Your task to perform on an android device: delete browsing data in the chrome app Image 0: 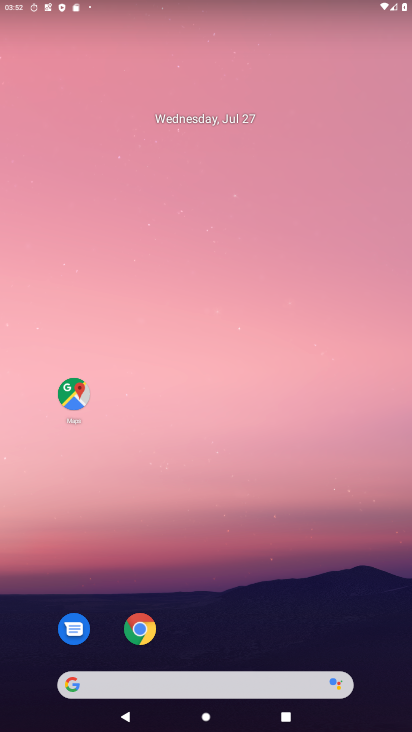
Step 0: drag from (294, 584) to (307, 111)
Your task to perform on an android device: delete browsing data in the chrome app Image 1: 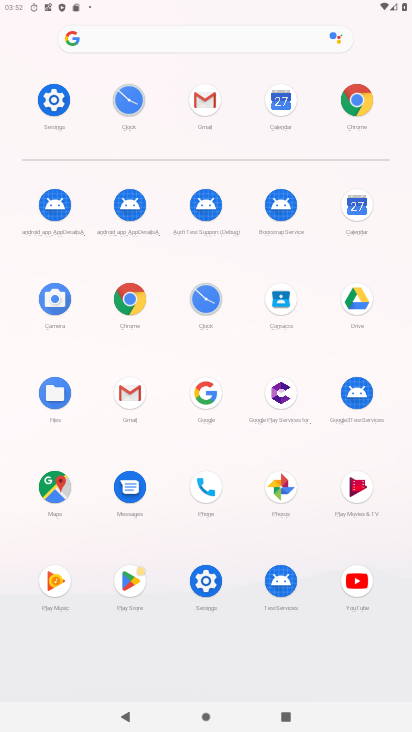
Step 1: click (128, 296)
Your task to perform on an android device: delete browsing data in the chrome app Image 2: 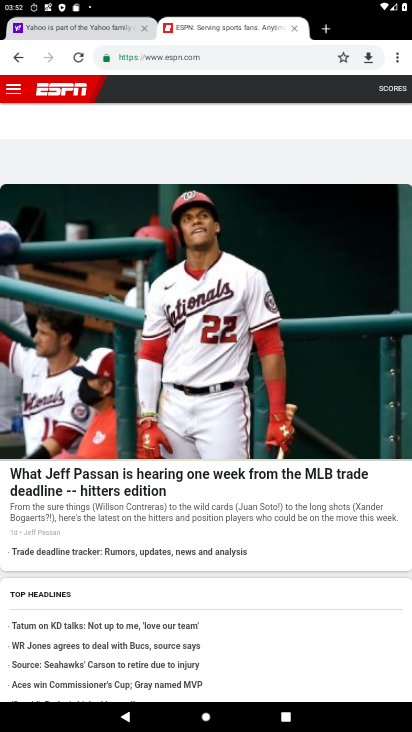
Step 2: drag from (401, 58) to (288, 179)
Your task to perform on an android device: delete browsing data in the chrome app Image 3: 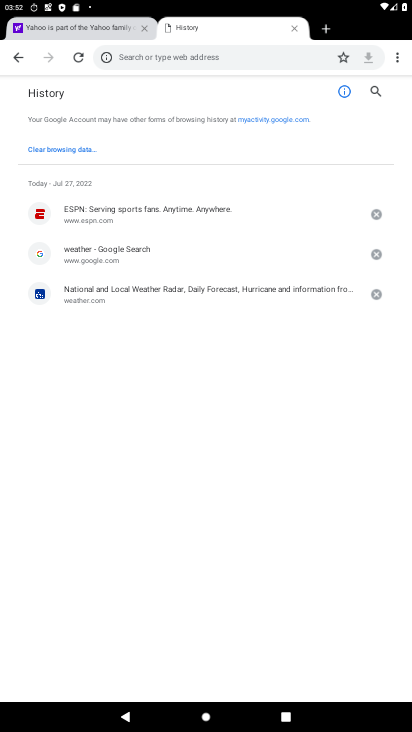
Step 3: click (55, 143)
Your task to perform on an android device: delete browsing data in the chrome app Image 4: 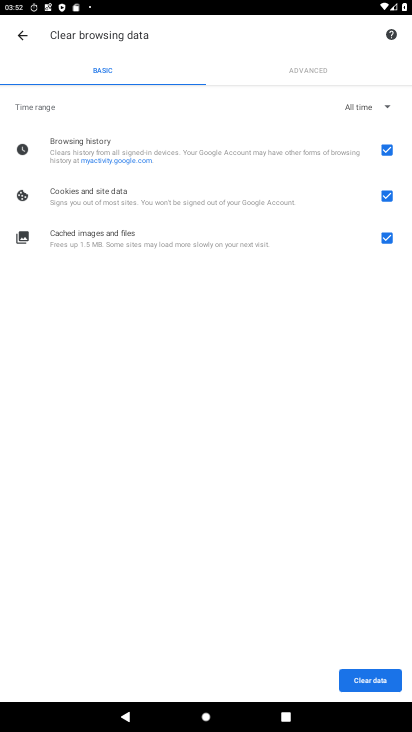
Step 4: click (389, 677)
Your task to perform on an android device: delete browsing data in the chrome app Image 5: 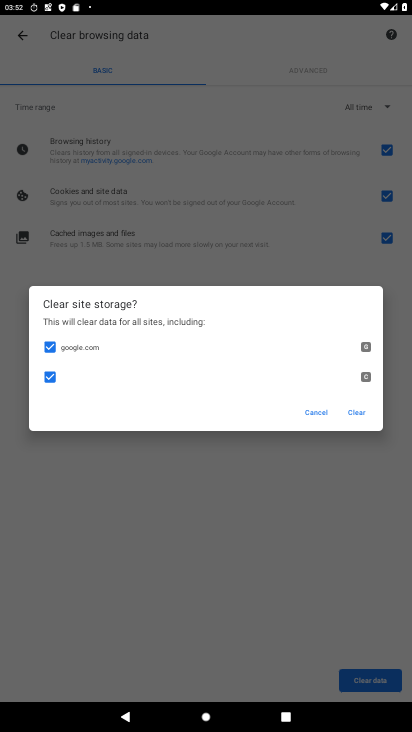
Step 5: click (357, 412)
Your task to perform on an android device: delete browsing data in the chrome app Image 6: 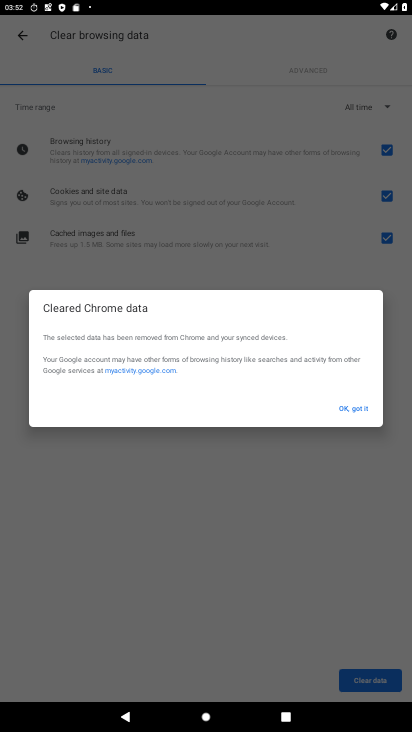
Step 6: task complete